Your task to perform on an android device: What is the news today? Image 0: 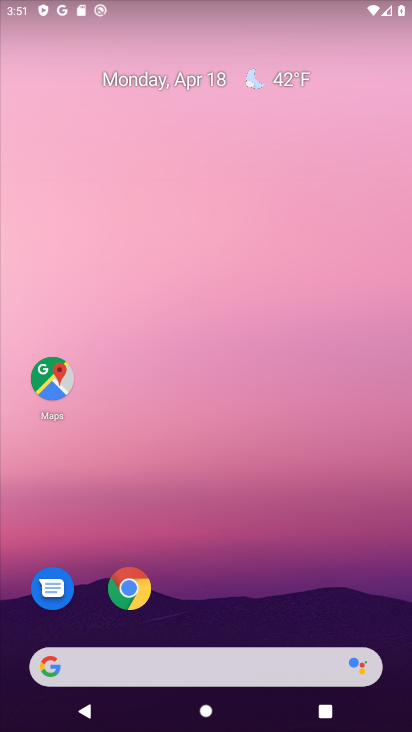
Step 0: drag from (116, 456) to (358, 420)
Your task to perform on an android device: What is the news today? Image 1: 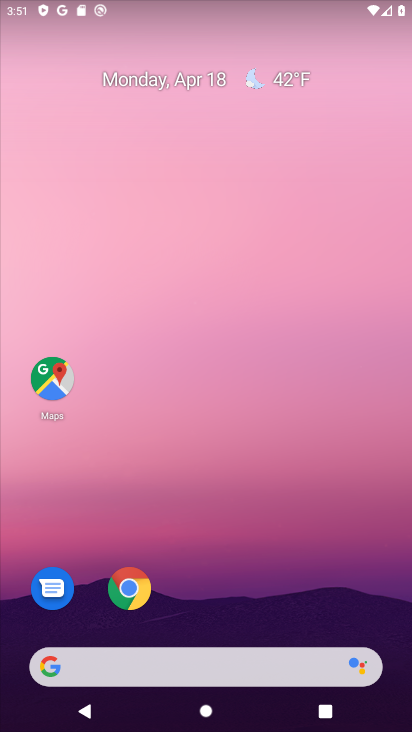
Step 1: task complete